Your task to perform on an android device: Open Google Maps Image 0: 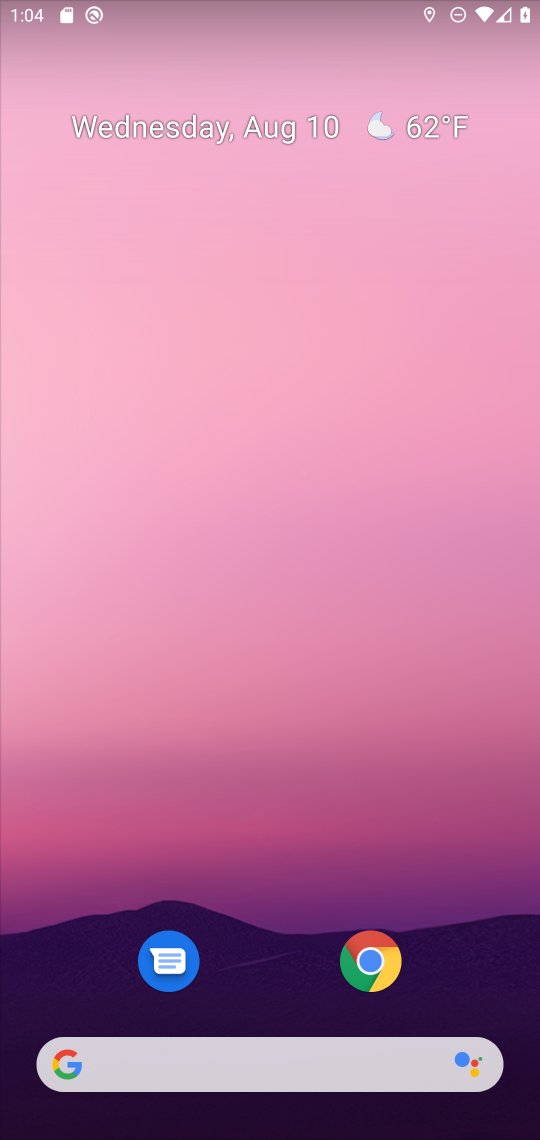
Step 0: drag from (250, 959) to (239, 401)
Your task to perform on an android device: Open Google Maps Image 1: 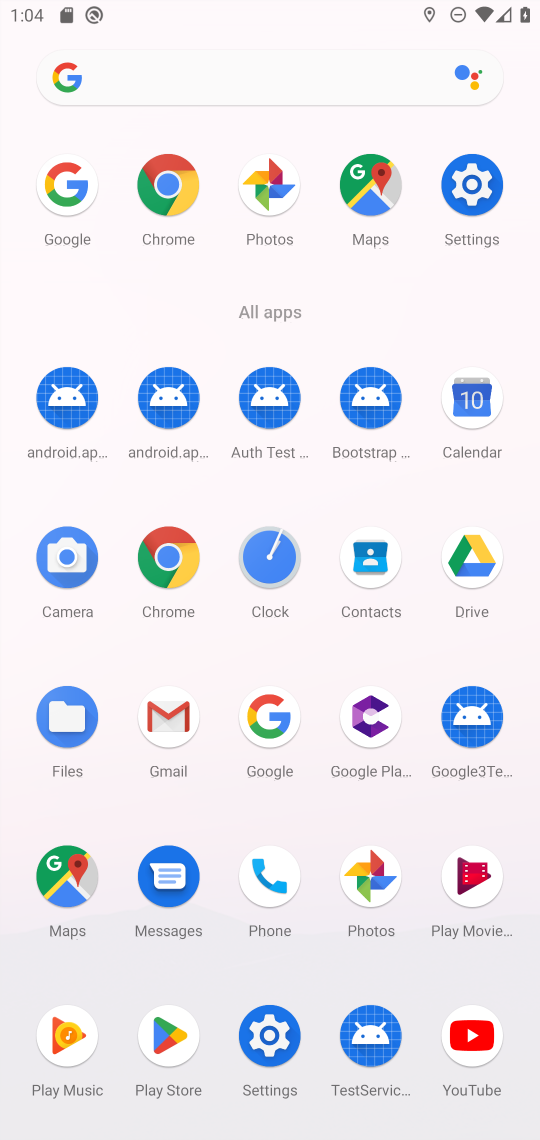
Step 1: click (371, 188)
Your task to perform on an android device: Open Google Maps Image 2: 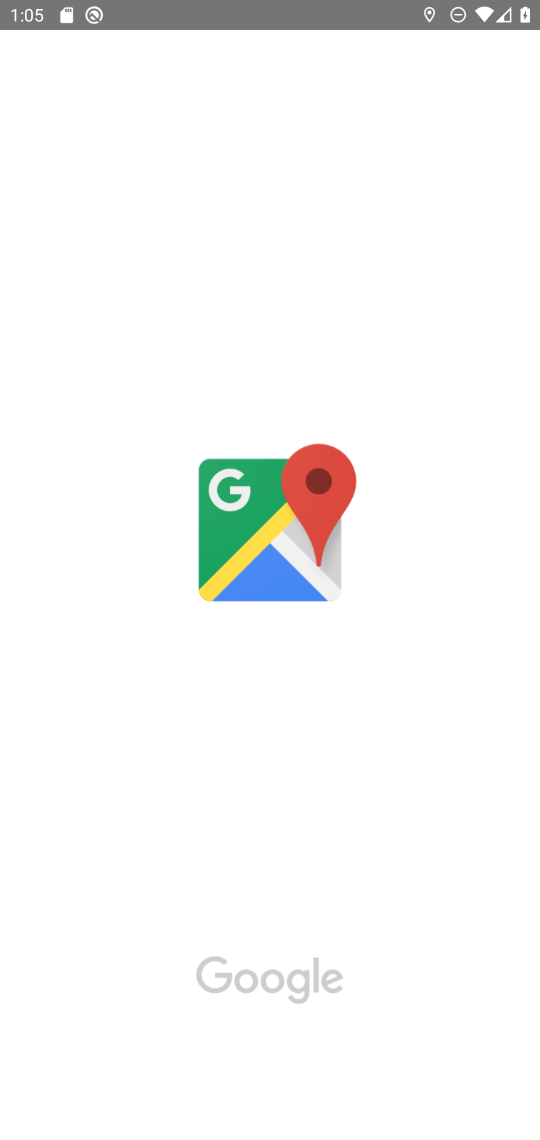
Step 2: task complete